Your task to perform on an android device: turn off location history Image 0: 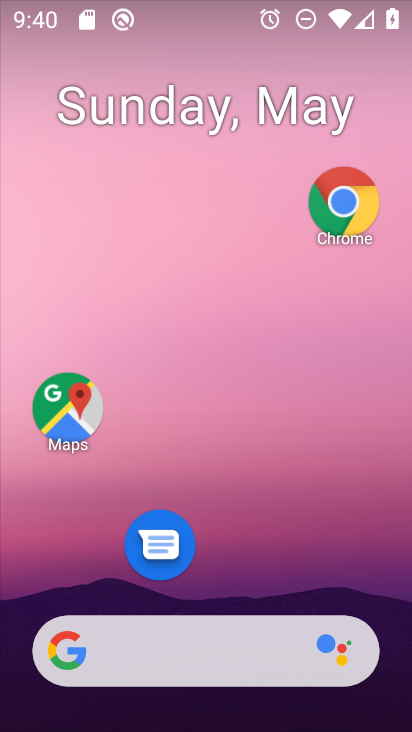
Step 0: drag from (258, 560) to (284, 59)
Your task to perform on an android device: turn off location history Image 1: 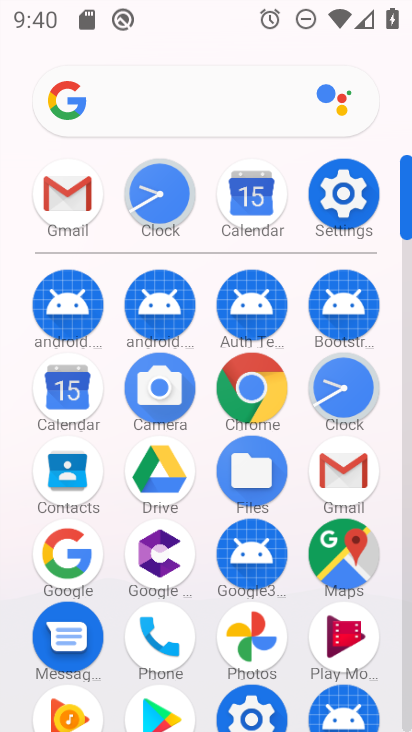
Step 1: click (328, 184)
Your task to perform on an android device: turn off location history Image 2: 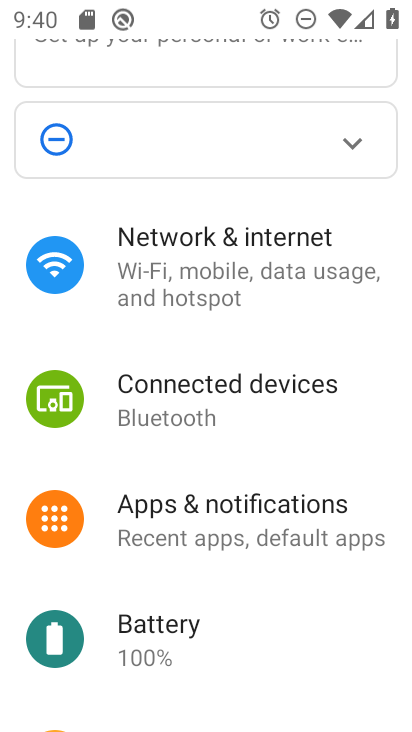
Step 2: drag from (252, 619) to (274, 272)
Your task to perform on an android device: turn off location history Image 3: 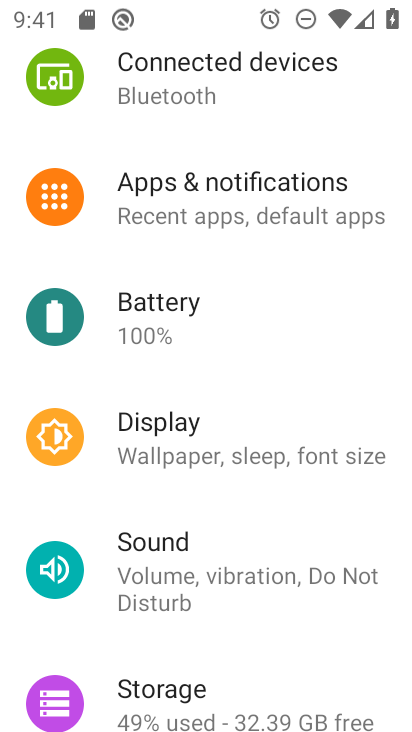
Step 3: drag from (240, 547) to (289, 325)
Your task to perform on an android device: turn off location history Image 4: 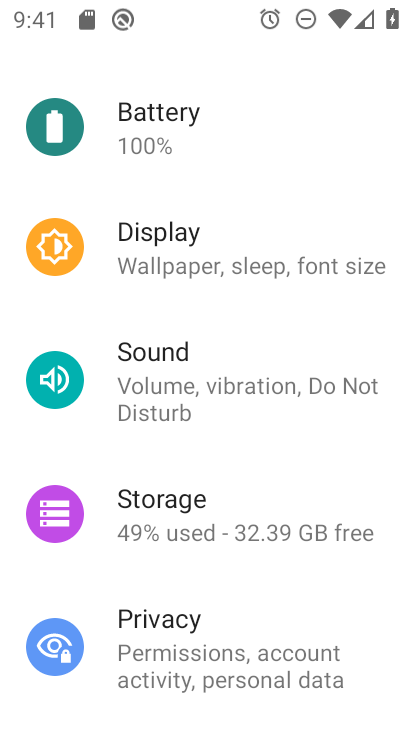
Step 4: drag from (189, 598) to (222, 365)
Your task to perform on an android device: turn off location history Image 5: 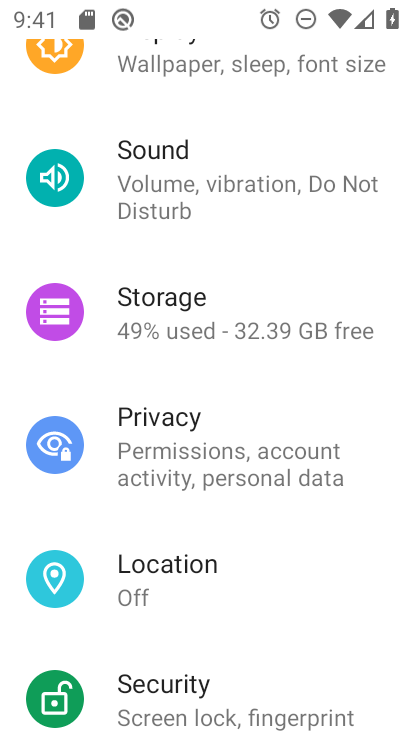
Step 5: drag from (274, 498) to (312, 297)
Your task to perform on an android device: turn off location history Image 6: 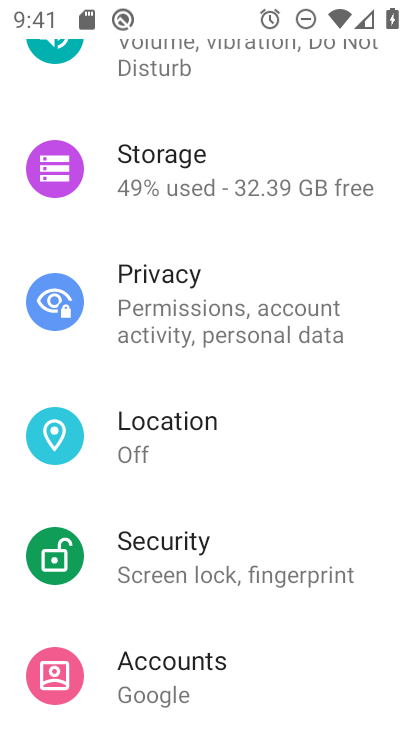
Step 6: click (184, 426)
Your task to perform on an android device: turn off location history Image 7: 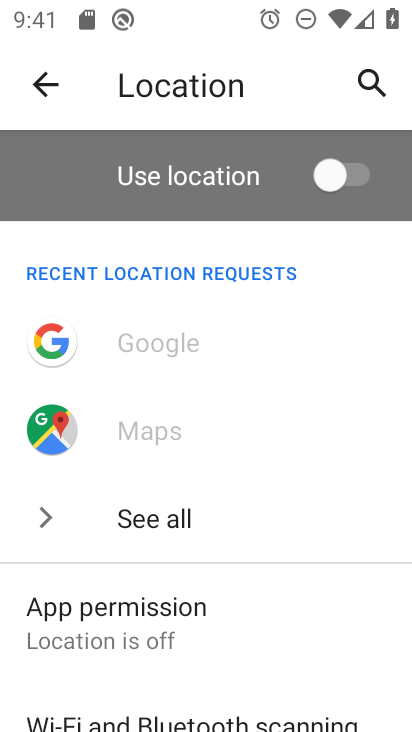
Step 7: drag from (222, 600) to (281, 391)
Your task to perform on an android device: turn off location history Image 8: 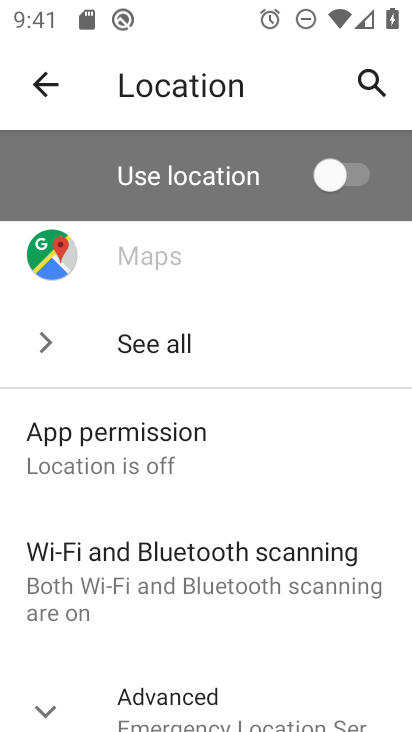
Step 8: drag from (181, 624) to (242, 361)
Your task to perform on an android device: turn off location history Image 9: 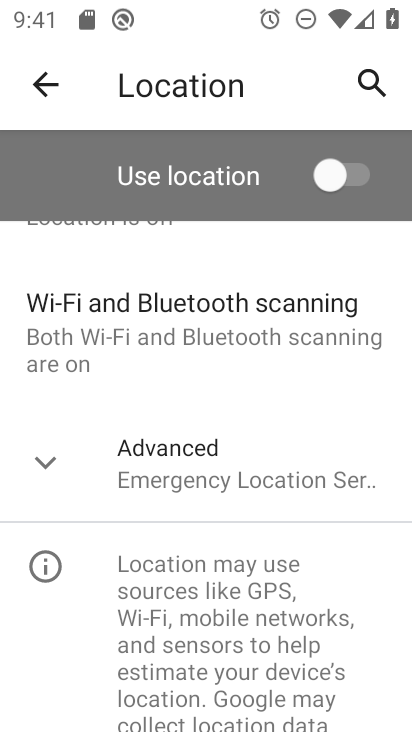
Step 9: click (181, 477)
Your task to perform on an android device: turn off location history Image 10: 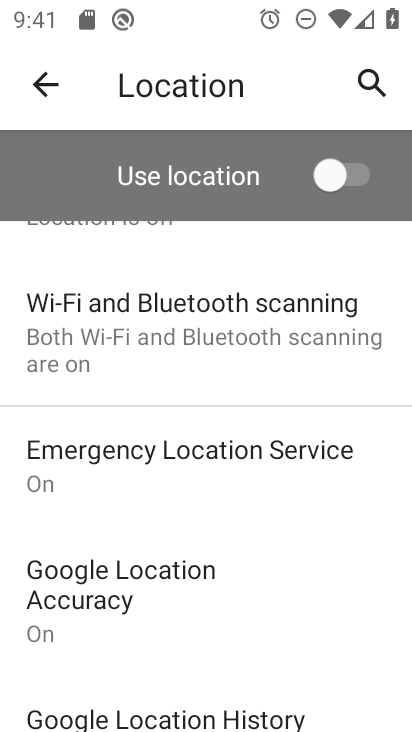
Step 10: drag from (133, 624) to (189, 412)
Your task to perform on an android device: turn off location history Image 11: 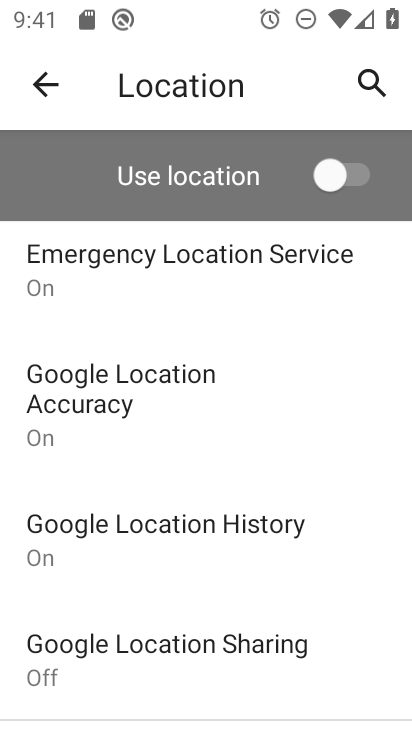
Step 11: click (136, 539)
Your task to perform on an android device: turn off location history Image 12: 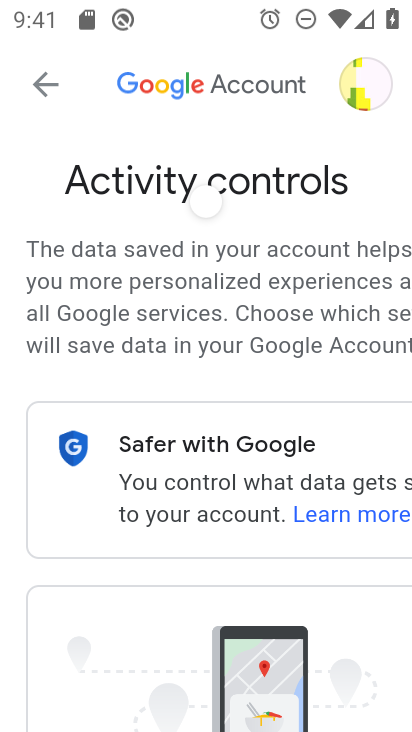
Step 12: drag from (206, 598) to (273, 196)
Your task to perform on an android device: turn off location history Image 13: 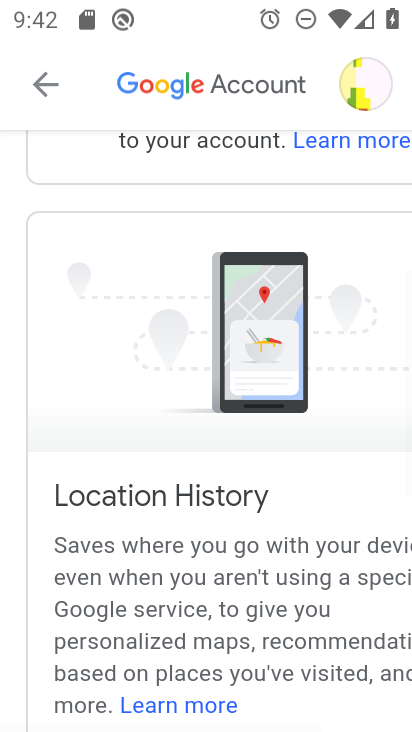
Step 13: drag from (251, 507) to (291, 138)
Your task to perform on an android device: turn off location history Image 14: 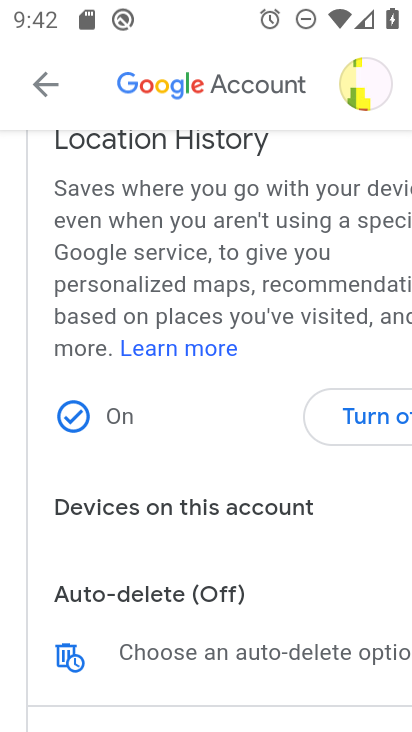
Step 14: click (389, 434)
Your task to perform on an android device: turn off location history Image 15: 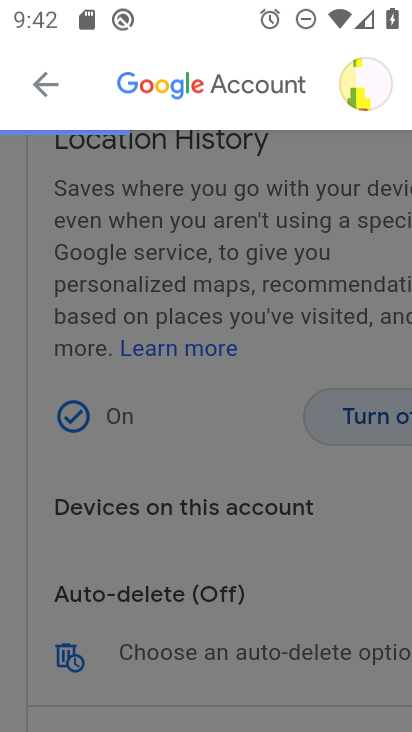
Step 15: click (382, 407)
Your task to perform on an android device: turn off location history Image 16: 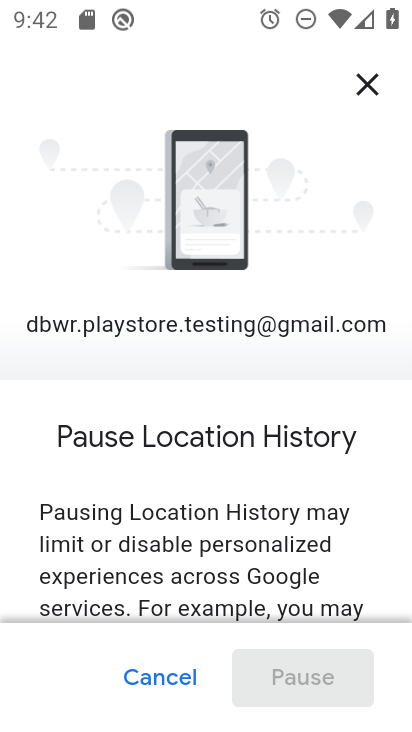
Step 16: drag from (178, 594) to (293, 170)
Your task to perform on an android device: turn off location history Image 17: 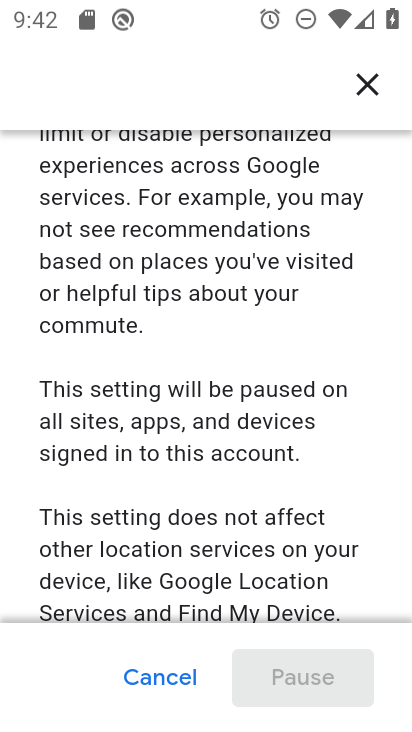
Step 17: drag from (266, 489) to (376, 168)
Your task to perform on an android device: turn off location history Image 18: 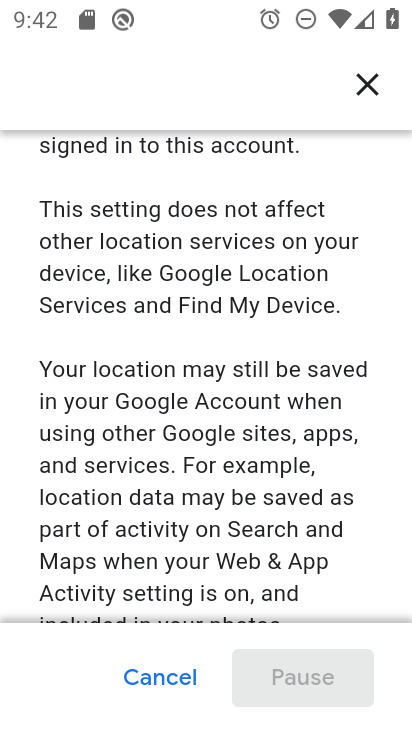
Step 18: drag from (219, 561) to (303, 202)
Your task to perform on an android device: turn off location history Image 19: 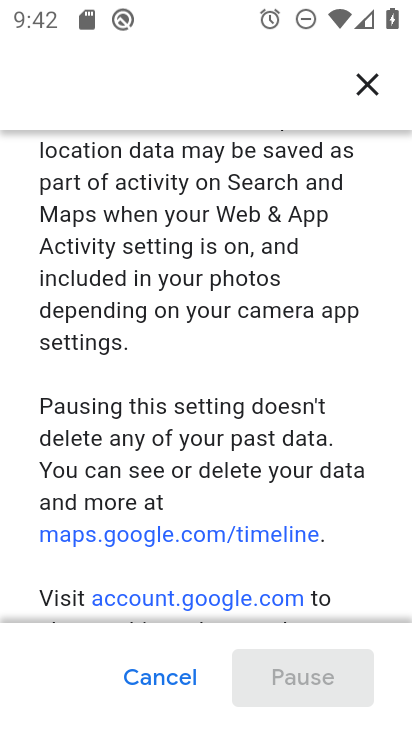
Step 19: drag from (302, 537) to (348, 218)
Your task to perform on an android device: turn off location history Image 20: 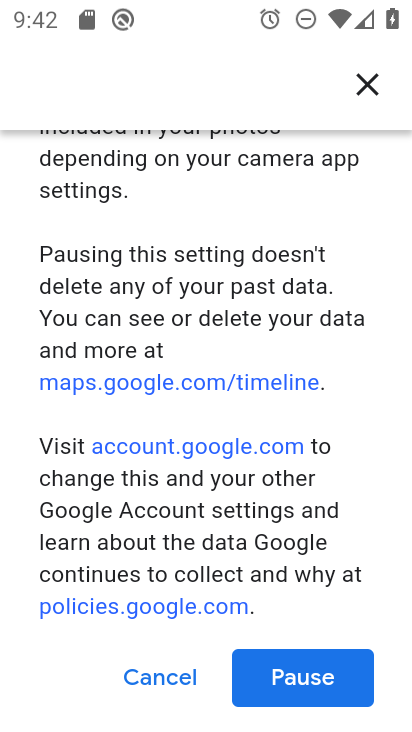
Step 20: click (284, 681)
Your task to perform on an android device: turn off location history Image 21: 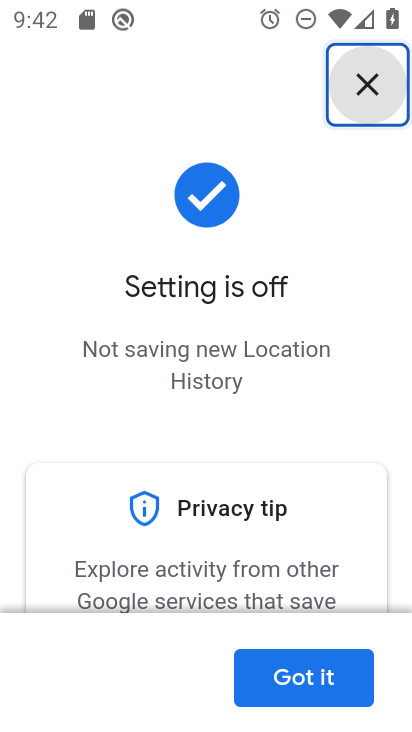
Step 21: click (284, 681)
Your task to perform on an android device: turn off location history Image 22: 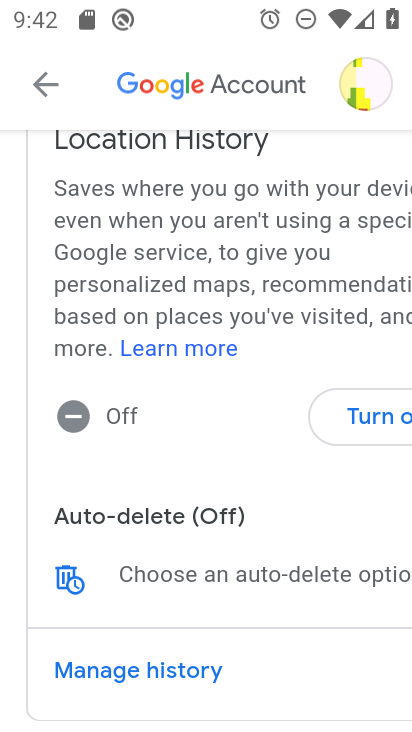
Step 22: task complete